Your task to perform on an android device: turn pop-ups on in chrome Image 0: 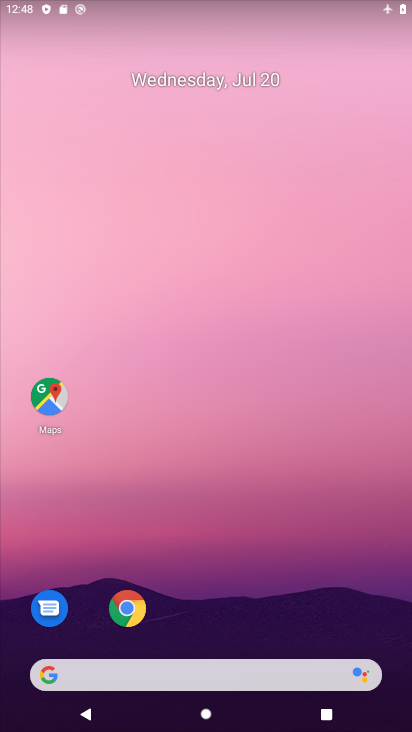
Step 0: click (268, 171)
Your task to perform on an android device: turn pop-ups on in chrome Image 1: 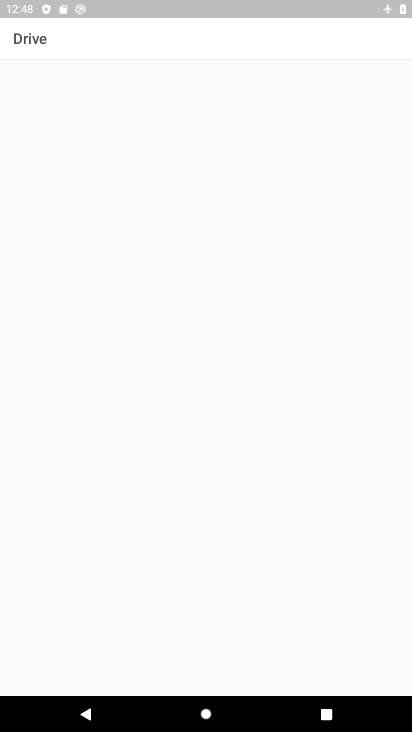
Step 1: press home button
Your task to perform on an android device: turn pop-ups on in chrome Image 2: 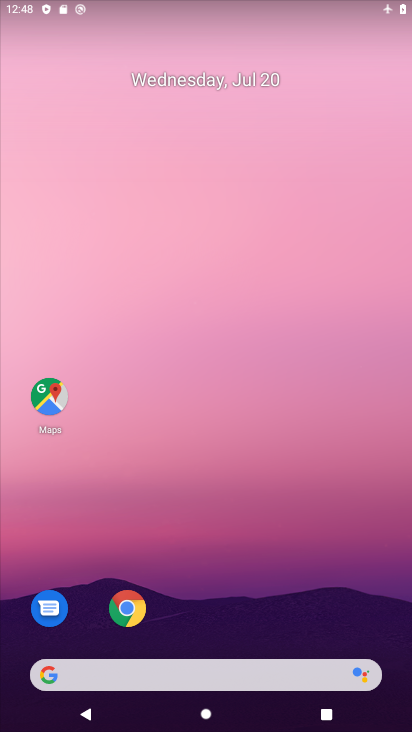
Step 2: click (130, 610)
Your task to perform on an android device: turn pop-ups on in chrome Image 3: 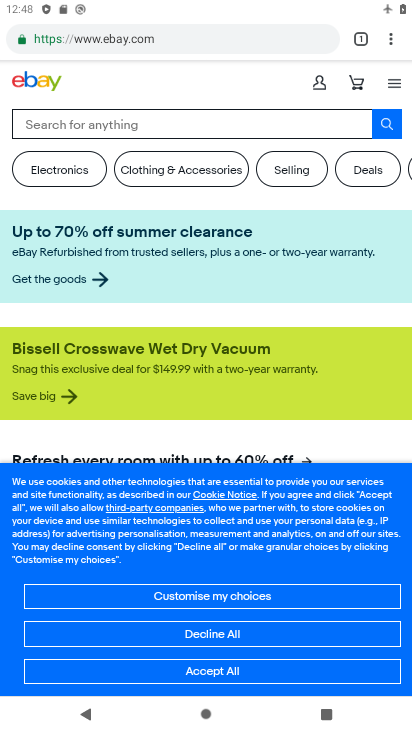
Step 3: click (391, 36)
Your task to perform on an android device: turn pop-ups on in chrome Image 4: 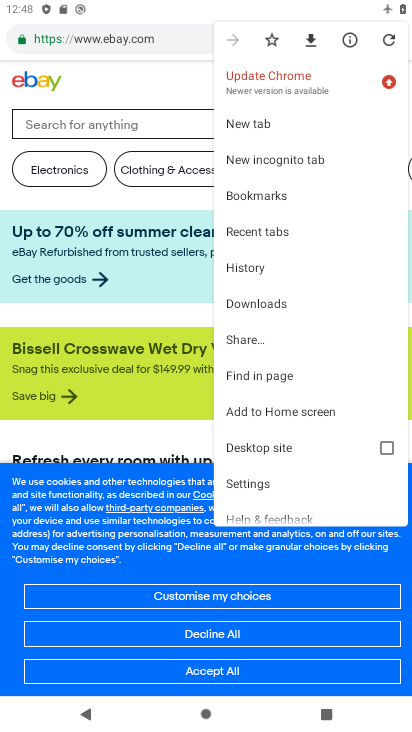
Step 4: click (244, 479)
Your task to perform on an android device: turn pop-ups on in chrome Image 5: 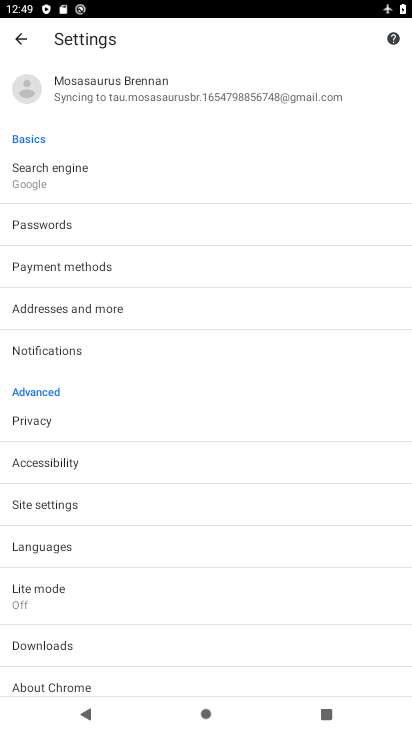
Step 5: click (35, 500)
Your task to perform on an android device: turn pop-ups on in chrome Image 6: 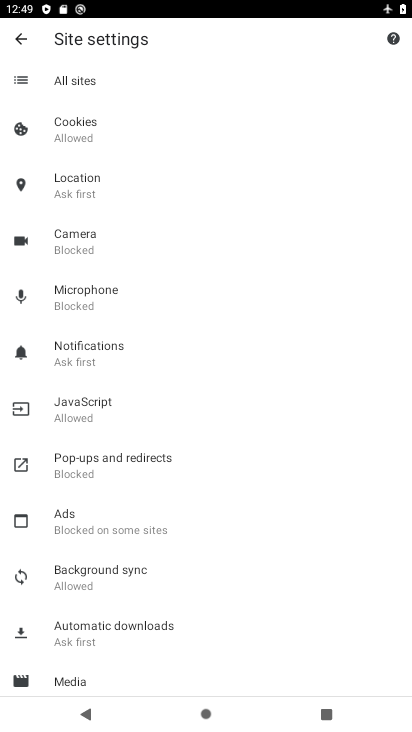
Step 6: click (108, 464)
Your task to perform on an android device: turn pop-ups on in chrome Image 7: 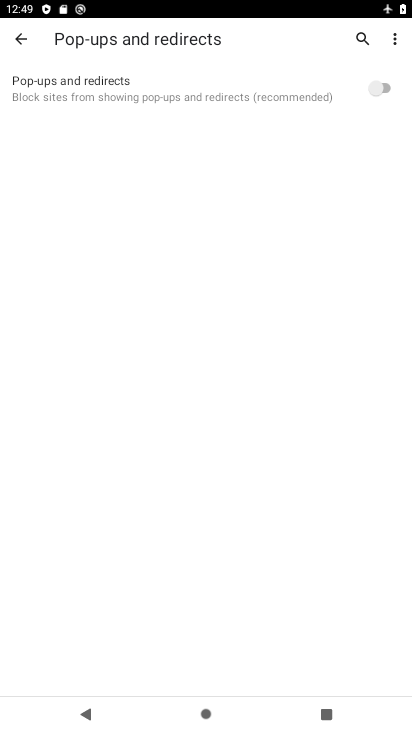
Step 7: click (383, 84)
Your task to perform on an android device: turn pop-ups on in chrome Image 8: 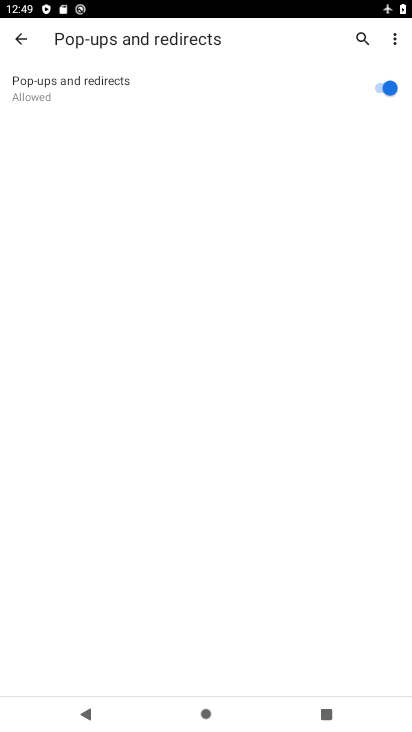
Step 8: task complete